Your task to perform on an android device: move a message to another label in the gmail app Image 0: 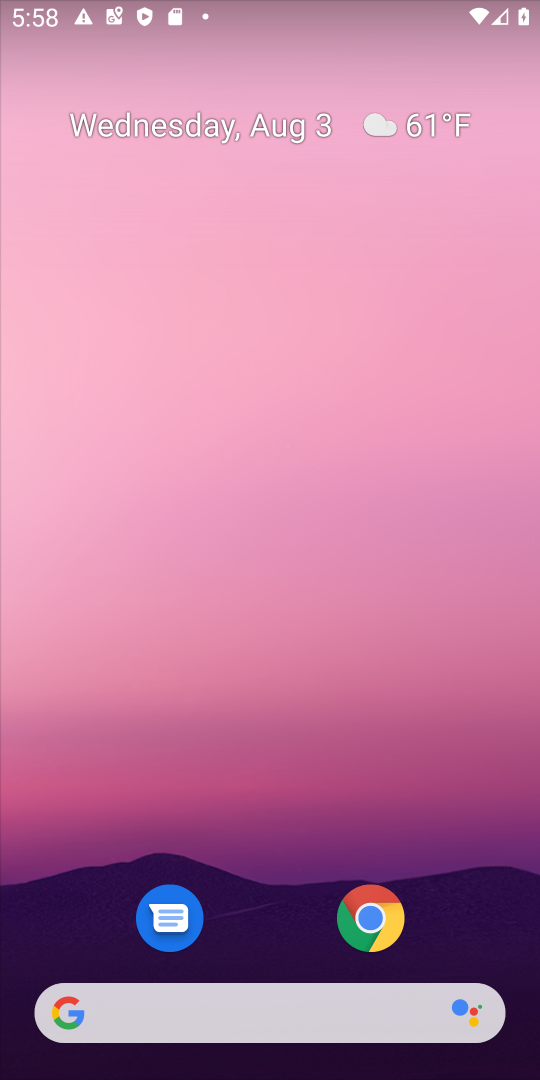
Step 0: drag from (264, 527) to (271, 202)
Your task to perform on an android device: move a message to another label in the gmail app Image 1: 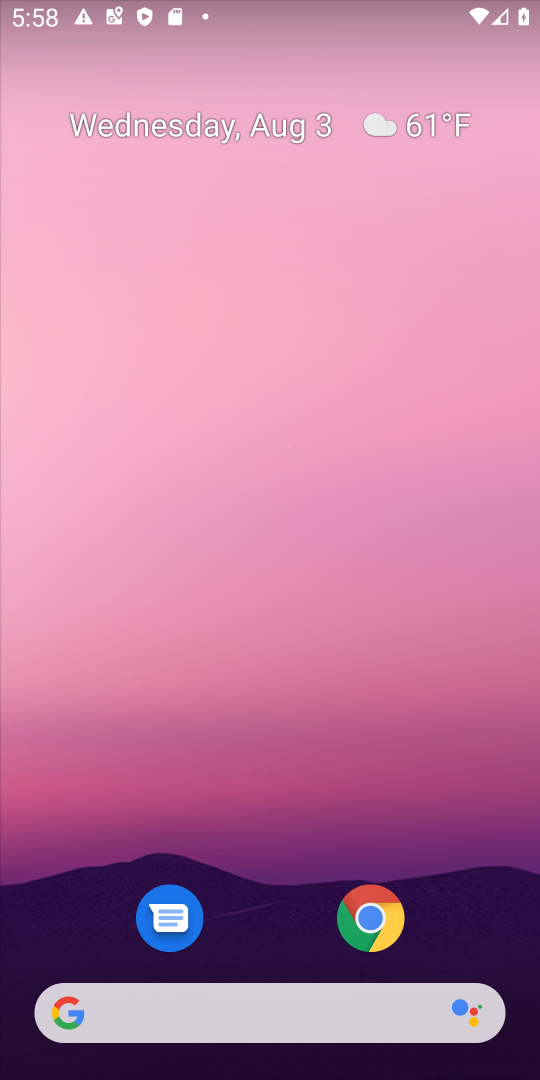
Step 1: drag from (265, 704) to (326, 138)
Your task to perform on an android device: move a message to another label in the gmail app Image 2: 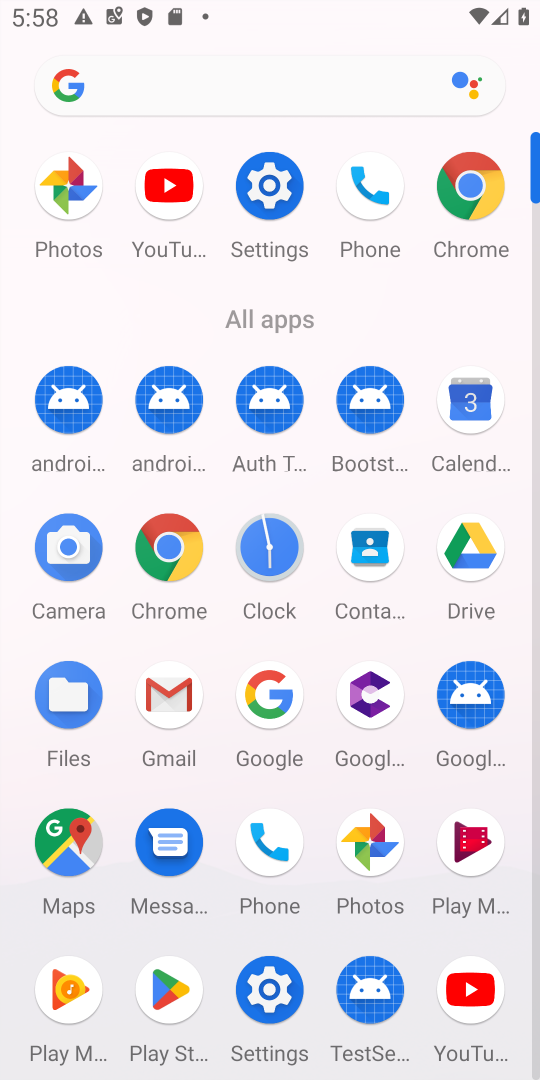
Step 2: click (183, 687)
Your task to perform on an android device: move a message to another label in the gmail app Image 3: 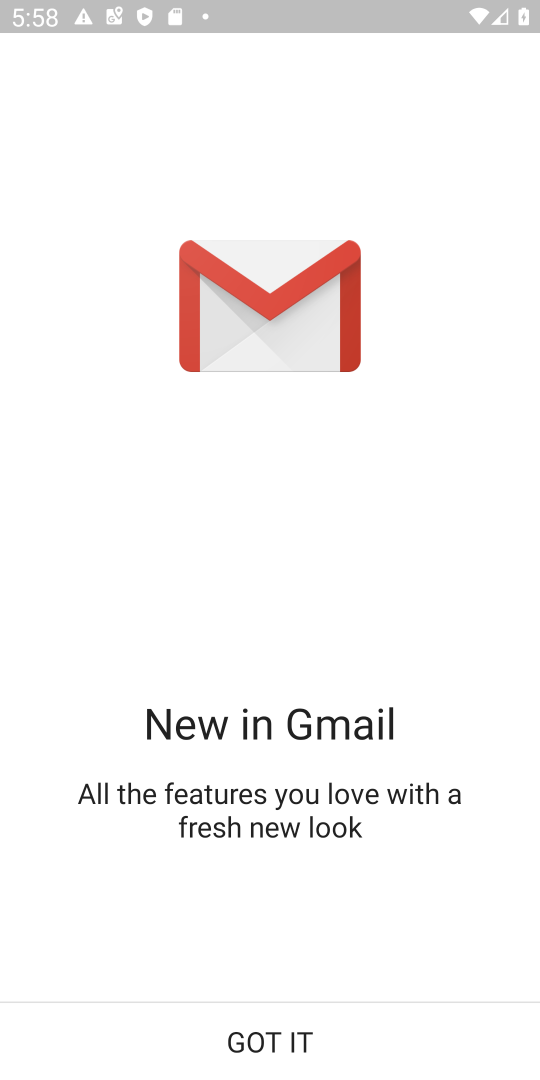
Step 3: click (296, 1045)
Your task to perform on an android device: move a message to another label in the gmail app Image 4: 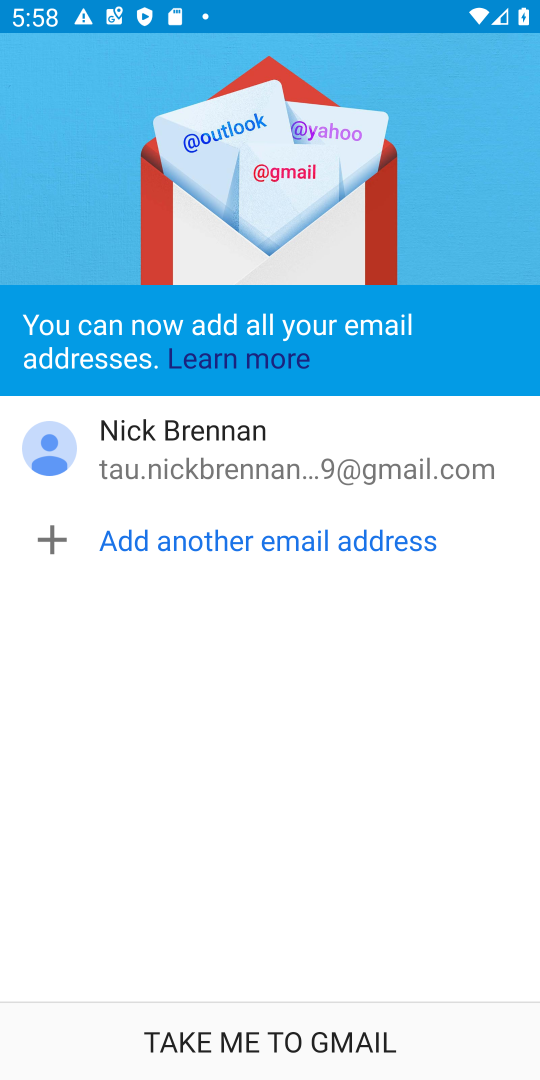
Step 4: click (296, 1045)
Your task to perform on an android device: move a message to another label in the gmail app Image 5: 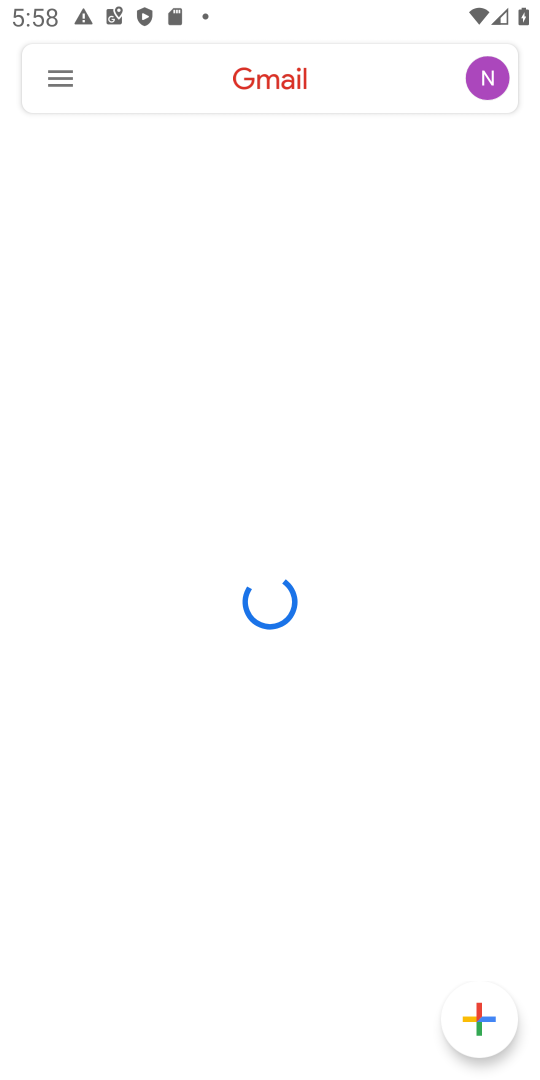
Step 5: click (67, 71)
Your task to perform on an android device: move a message to another label in the gmail app Image 6: 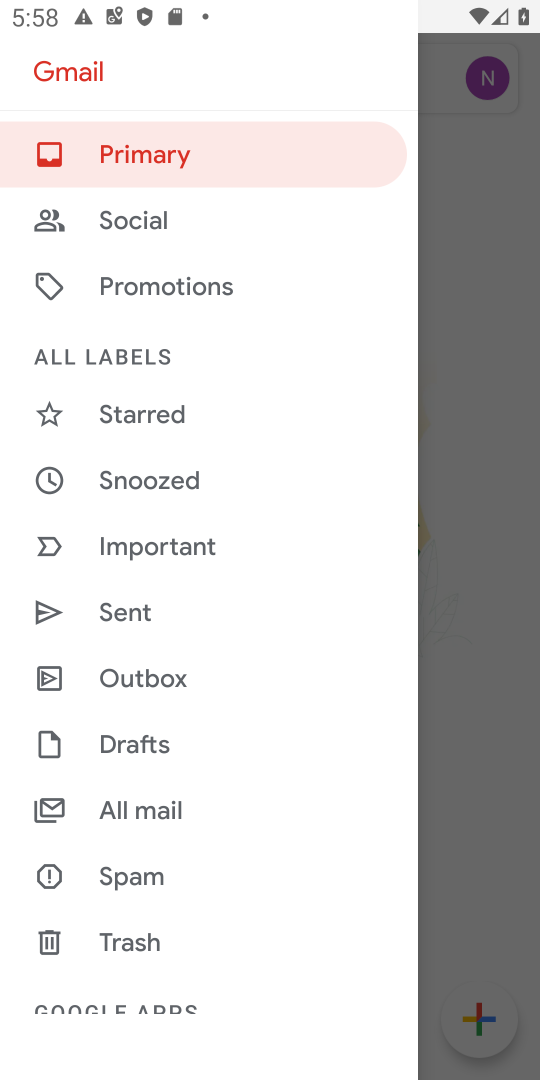
Step 6: click (135, 797)
Your task to perform on an android device: move a message to another label in the gmail app Image 7: 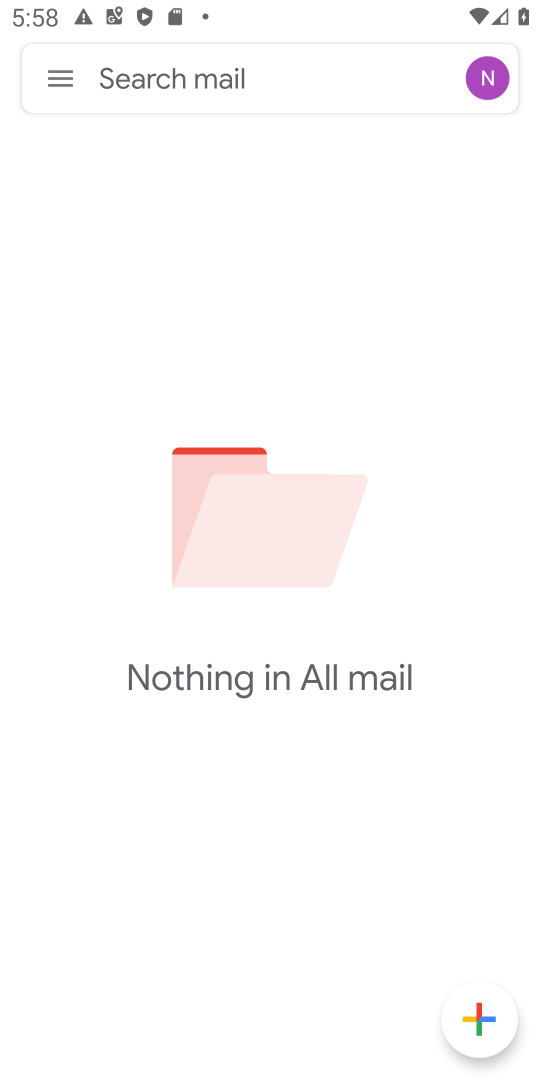
Step 7: task complete